Your task to perform on an android device: toggle sleep mode Image 0: 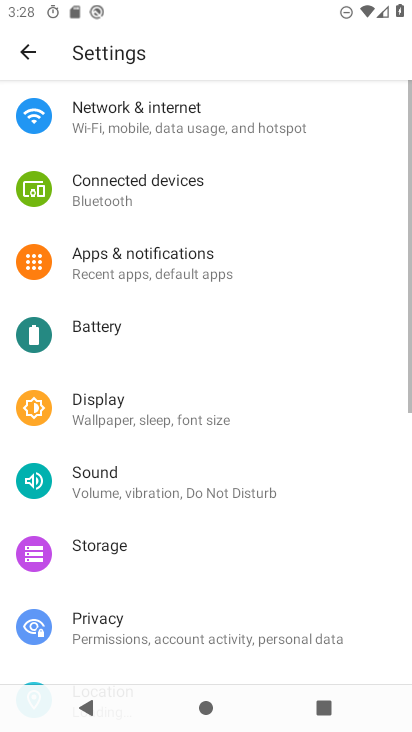
Step 0: press home button
Your task to perform on an android device: toggle sleep mode Image 1: 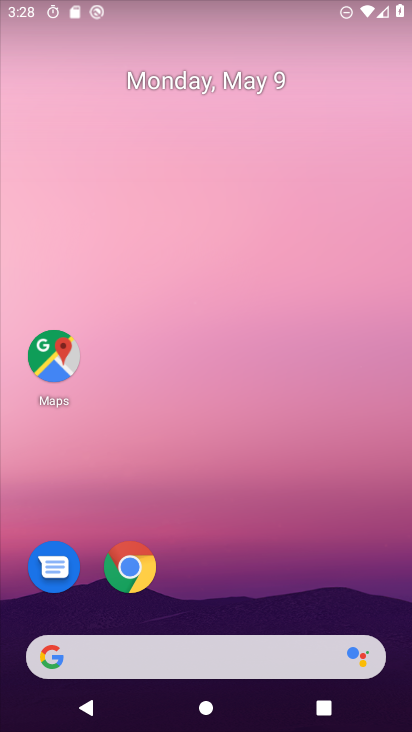
Step 1: drag from (269, 455) to (290, 18)
Your task to perform on an android device: toggle sleep mode Image 2: 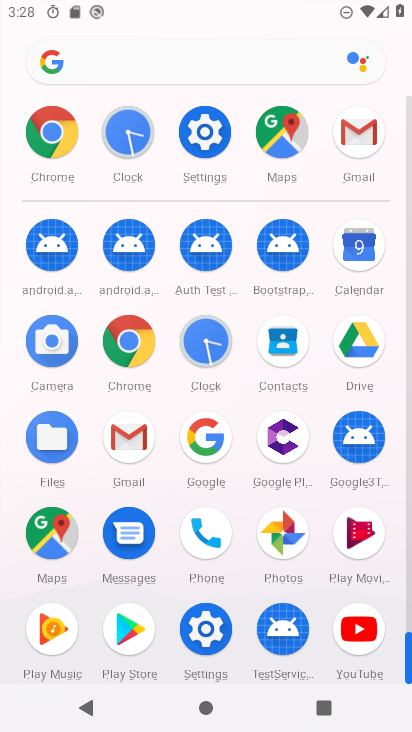
Step 2: click (204, 645)
Your task to perform on an android device: toggle sleep mode Image 3: 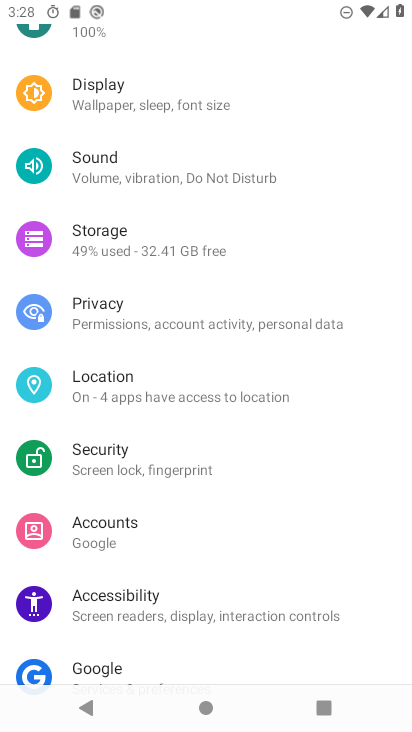
Step 3: click (184, 81)
Your task to perform on an android device: toggle sleep mode Image 4: 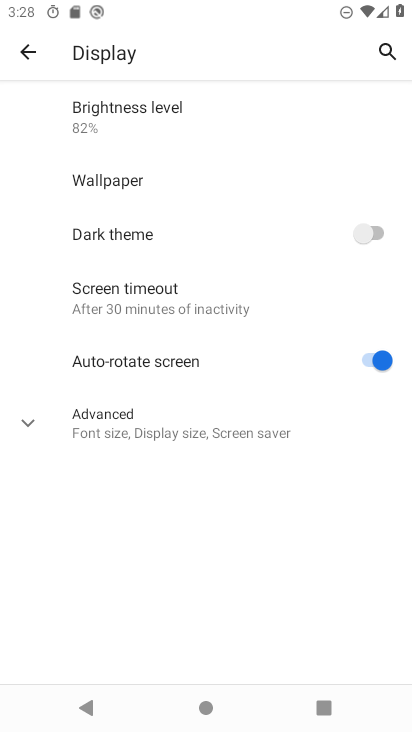
Step 4: click (165, 437)
Your task to perform on an android device: toggle sleep mode Image 5: 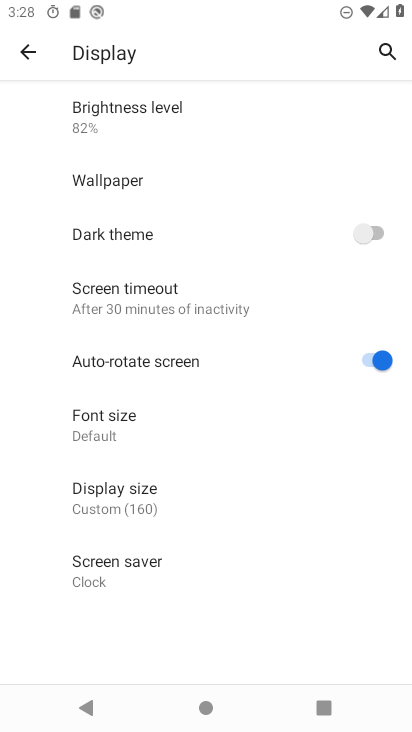
Step 5: task complete